Your task to perform on an android device: turn smart compose on in the gmail app Image 0: 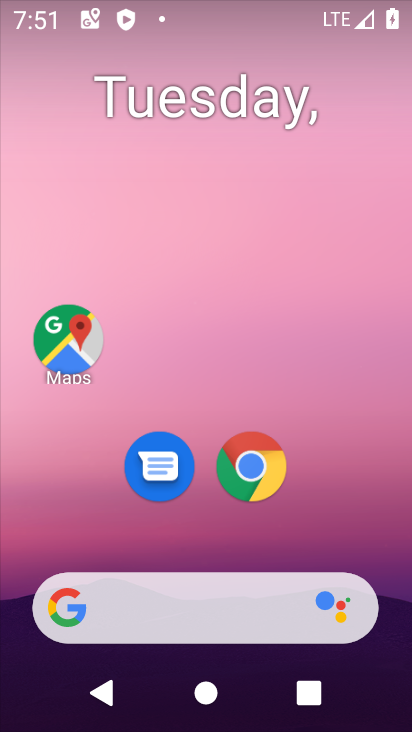
Step 0: drag from (352, 527) to (239, 210)
Your task to perform on an android device: turn smart compose on in the gmail app Image 1: 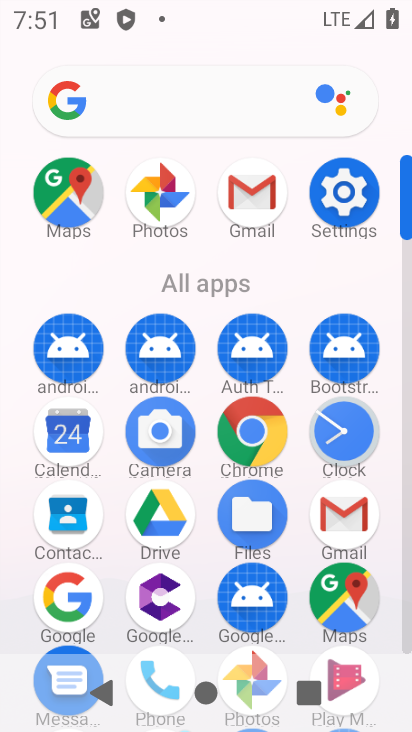
Step 1: click (262, 210)
Your task to perform on an android device: turn smart compose on in the gmail app Image 2: 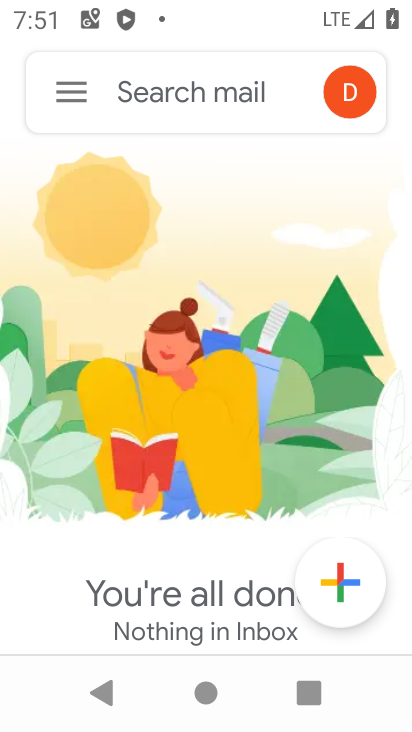
Step 2: click (77, 103)
Your task to perform on an android device: turn smart compose on in the gmail app Image 3: 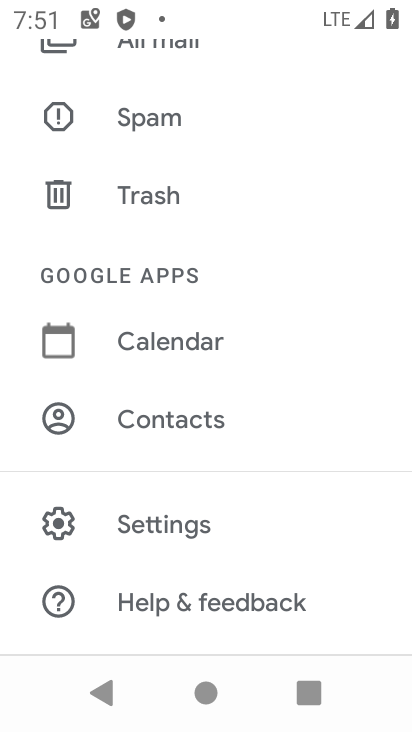
Step 3: click (91, 512)
Your task to perform on an android device: turn smart compose on in the gmail app Image 4: 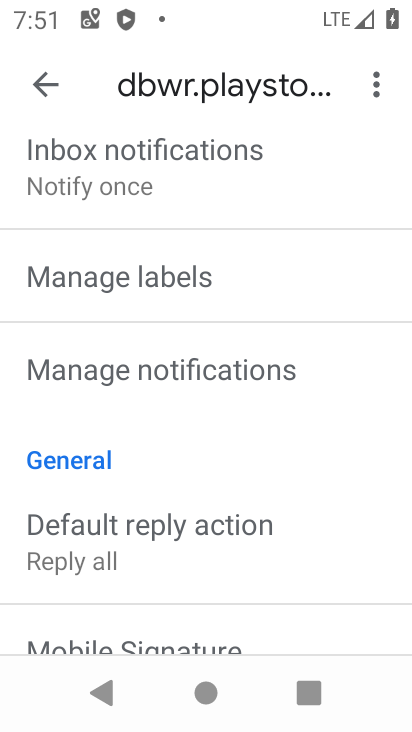
Step 4: drag from (265, 549) to (295, 168)
Your task to perform on an android device: turn smart compose on in the gmail app Image 5: 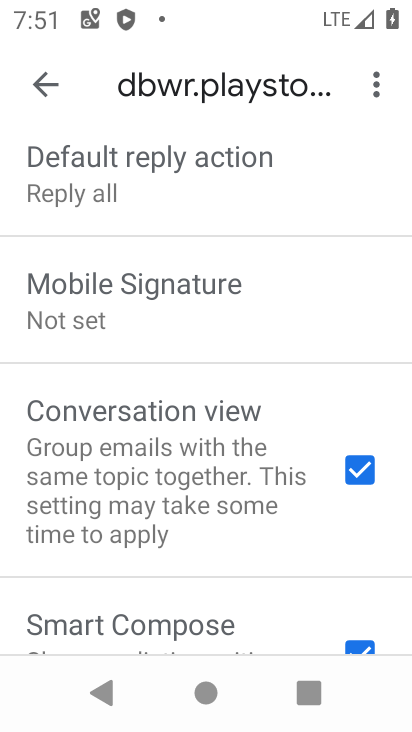
Step 5: drag from (199, 497) to (231, 53)
Your task to perform on an android device: turn smart compose on in the gmail app Image 6: 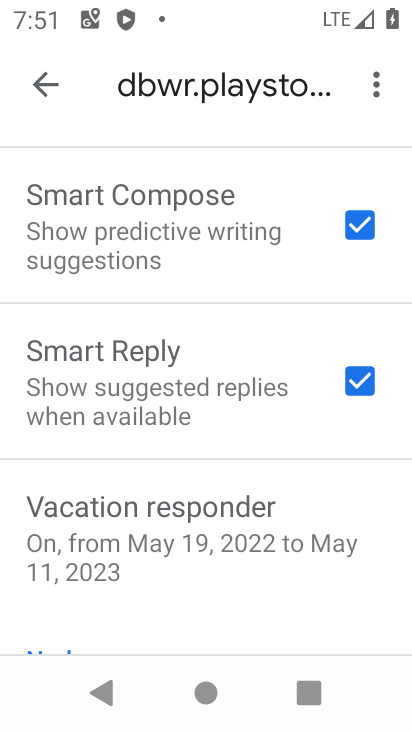
Step 6: click (115, 496)
Your task to perform on an android device: turn smart compose on in the gmail app Image 7: 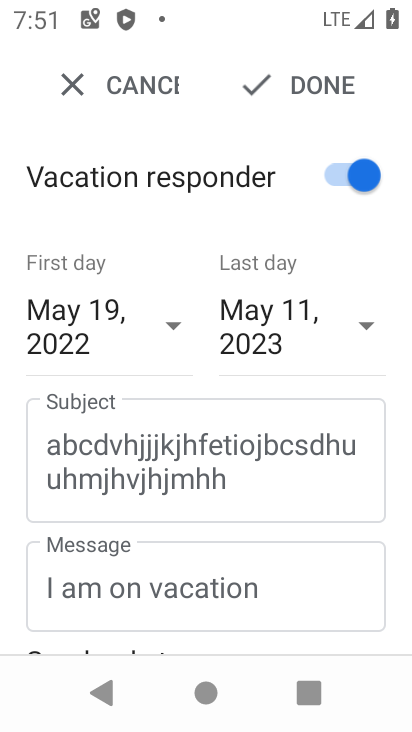
Step 7: click (261, 100)
Your task to perform on an android device: turn smart compose on in the gmail app Image 8: 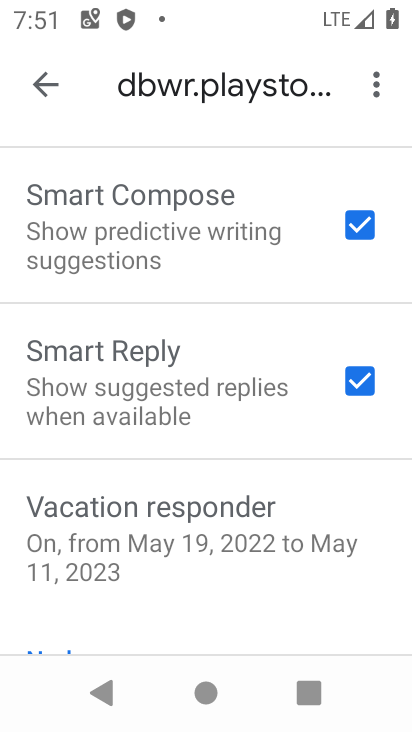
Step 8: click (336, 212)
Your task to perform on an android device: turn smart compose on in the gmail app Image 9: 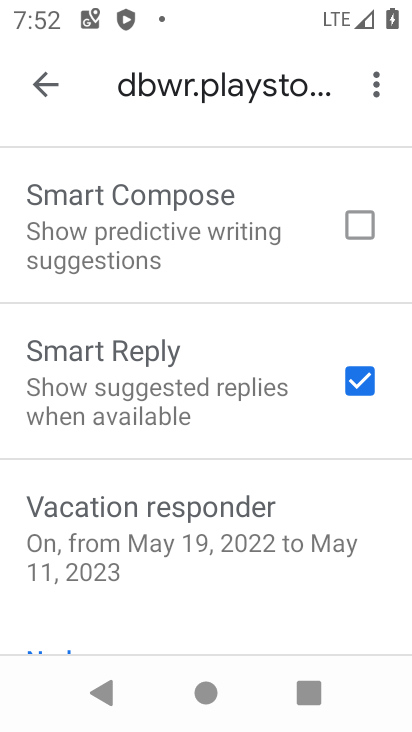
Step 9: click (341, 230)
Your task to perform on an android device: turn smart compose on in the gmail app Image 10: 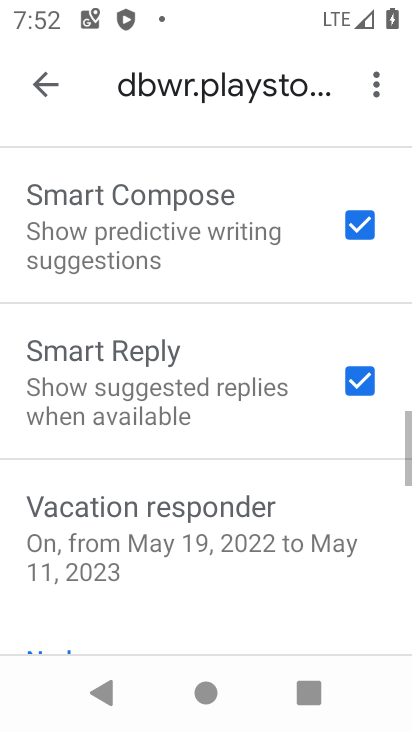
Step 10: task complete